Your task to perform on an android device: read, delete, or share a saved page in the chrome app Image 0: 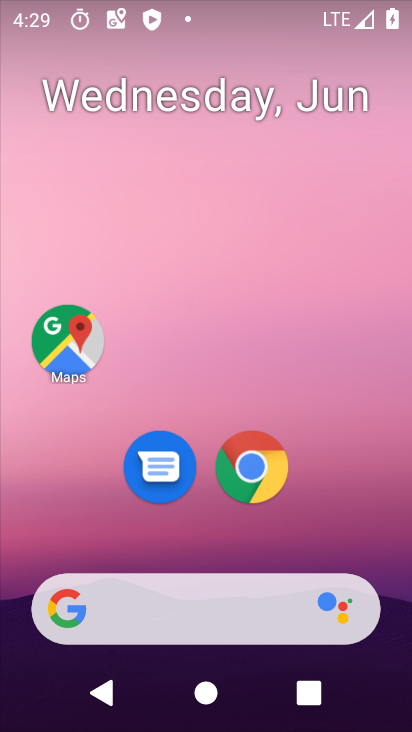
Step 0: click (245, 460)
Your task to perform on an android device: read, delete, or share a saved page in the chrome app Image 1: 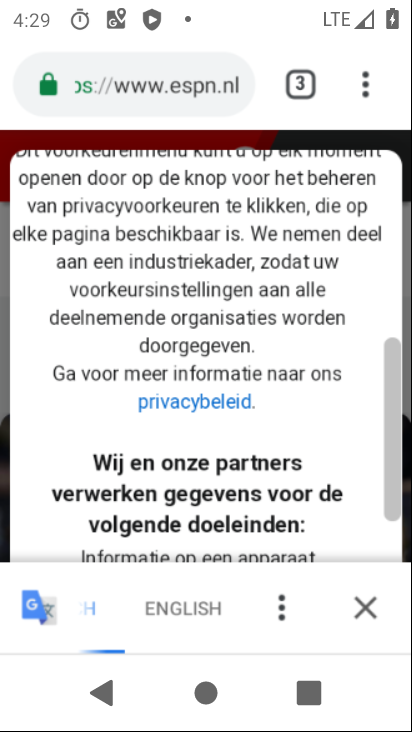
Step 1: click (365, 90)
Your task to perform on an android device: read, delete, or share a saved page in the chrome app Image 2: 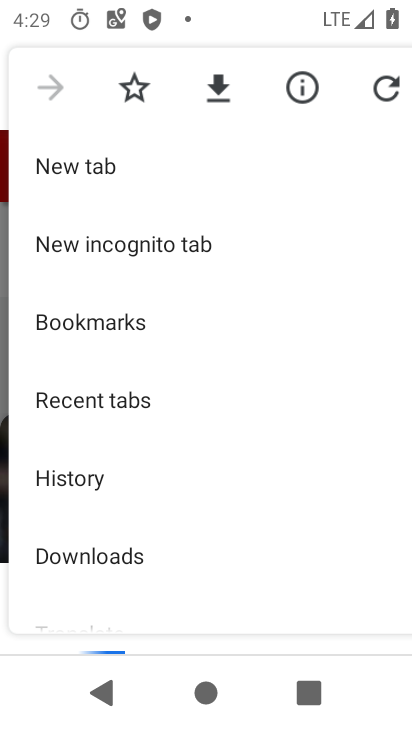
Step 2: click (145, 565)
Your task to perform on an android device: read, delete, or share a saved page in the chrome app Image 3: 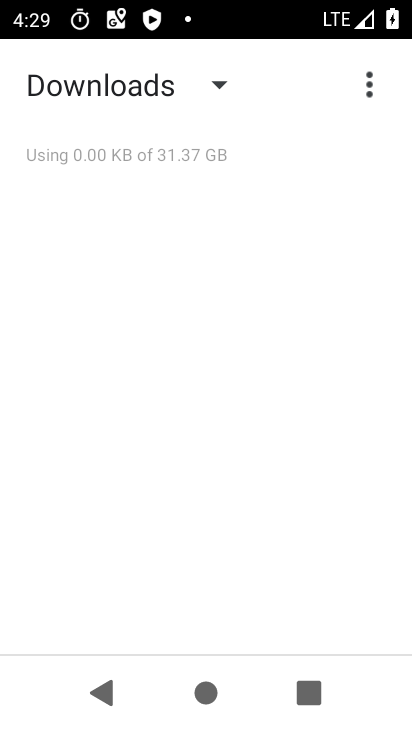
Step 3: click (172, 78)
Your task to perform on an android device: read, delete, or share a saved page in the chrome app Image 4: 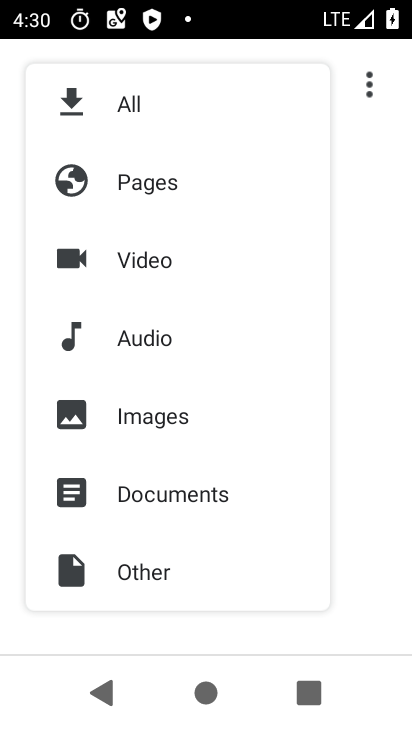
Step 4: click (164, 181)
Your task to perform on an android device: read, delete, or share a saved page in the chrome app Image 5: 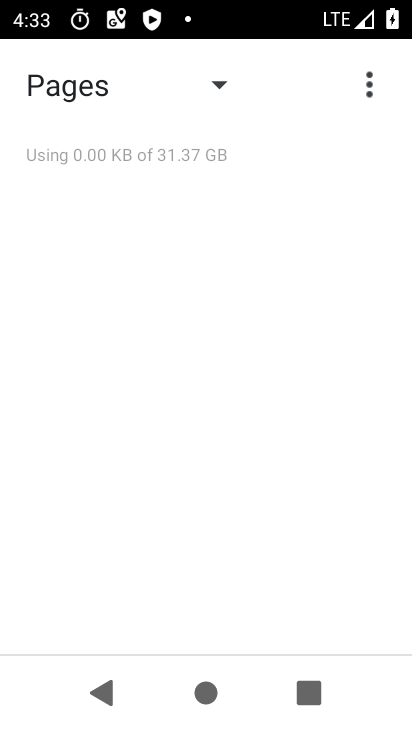
Step 5: task complete